Your task to perform on an android device: delete the emails in spam in the gmail app Image 0: 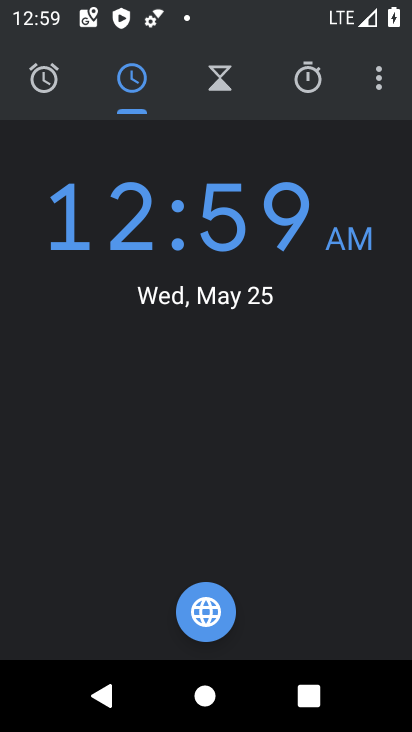
Step 0: press home button
Your task to perform on an android device: delete the emails in spam in the gmail app Image 1: 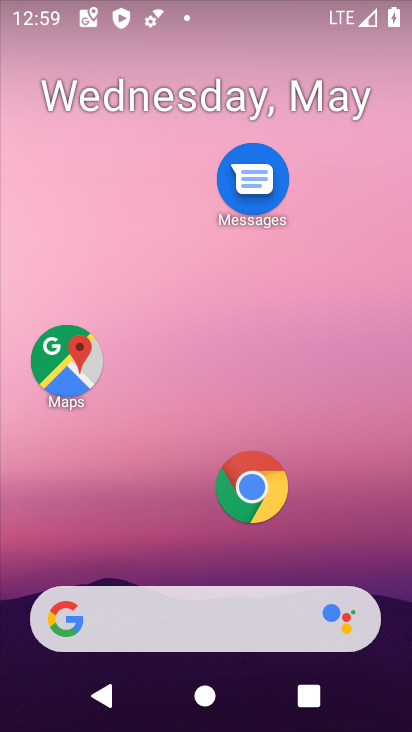
Step 1: drag from (191, 517) to (260, 85)
Your task to perform on an android device: delete the emails in spam in the gmail app Image 2: 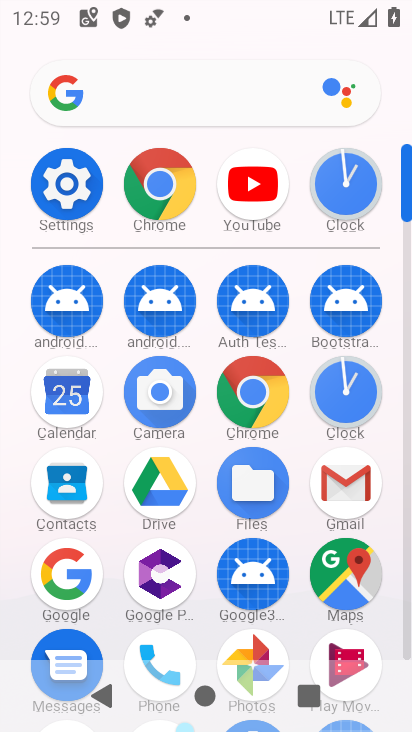
Step 2: click (355, 485)
Your task to perform on an android device: delete the emails in spam in the gmail app Image 3: 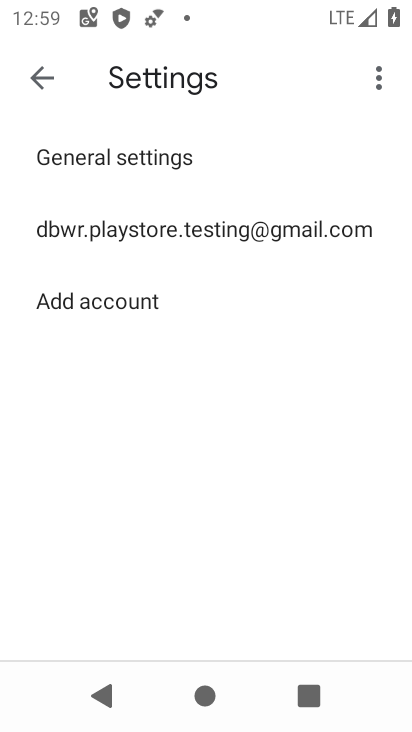
Step 3: click (36, 84)
Your task to perform on an android device: delete the emails in spam in the gmail app Image 4: 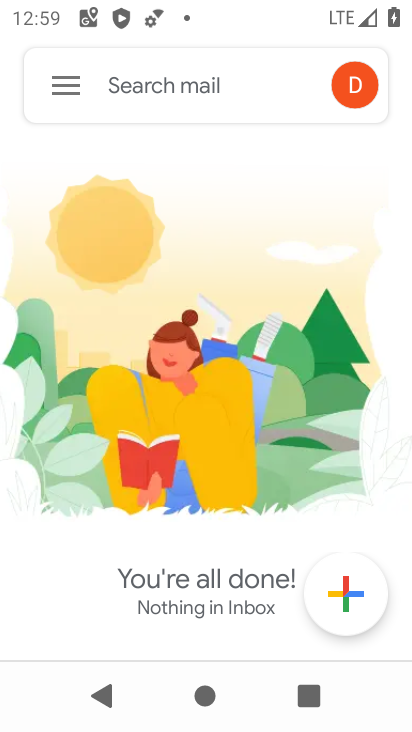
Step 4: click (70, 79)
Your task to perform on an android device: delete the emails in spam in the gmail app Image 5: 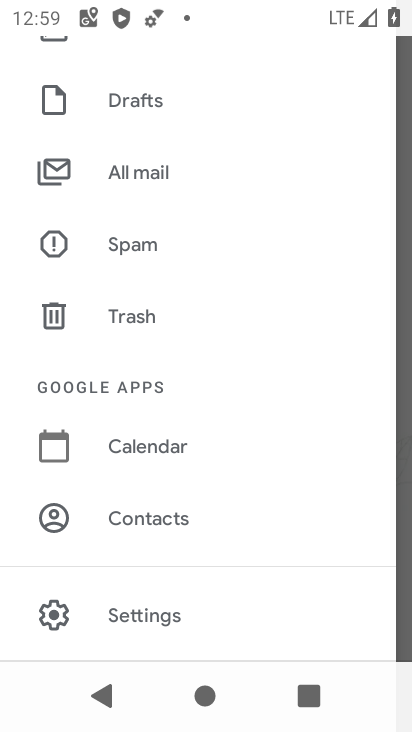
Step 5: click (145, 250)
Your task to perform on an android device: delete the emails in spam in the gmail app Image 6: 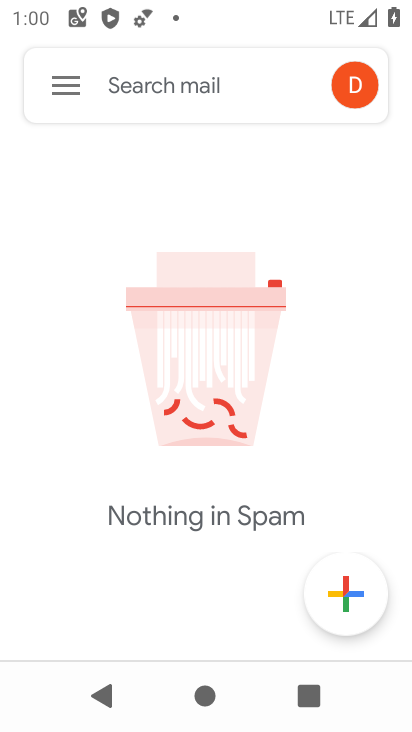
Step 6: task complete